Your task to perform on an android device: Play the last video I watched on Youtube Image 0: 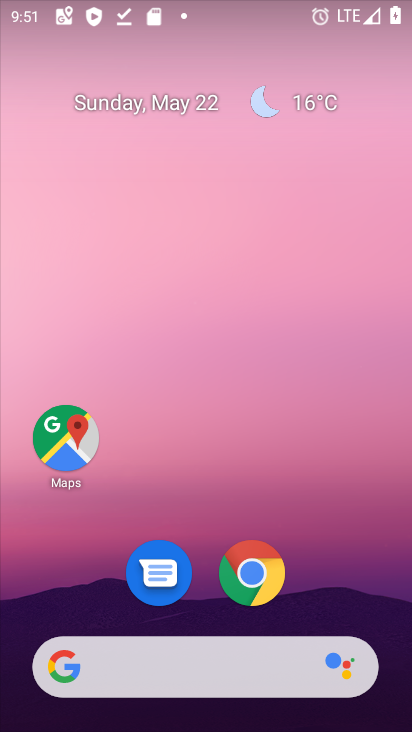
Step 0: drag from (196, 611) to (248, 8)
Your task to perform on an android device: Play the last video I watched on Youtube Image 1: 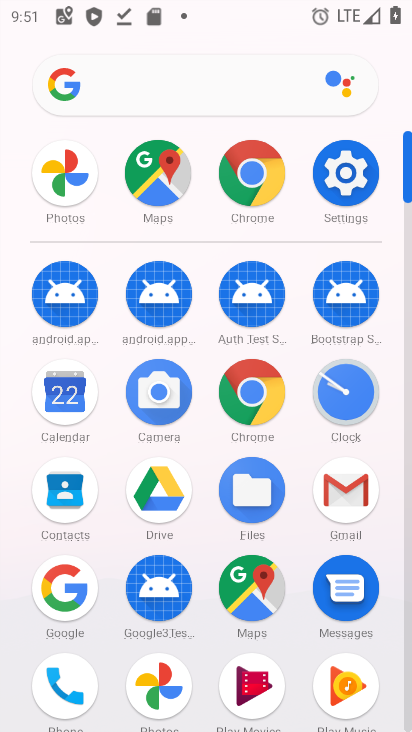
Step 1: drag from (286, 625) to (287, 96)
Your task to perform on an android device: Play the last video I watched on Youtube Image 2: 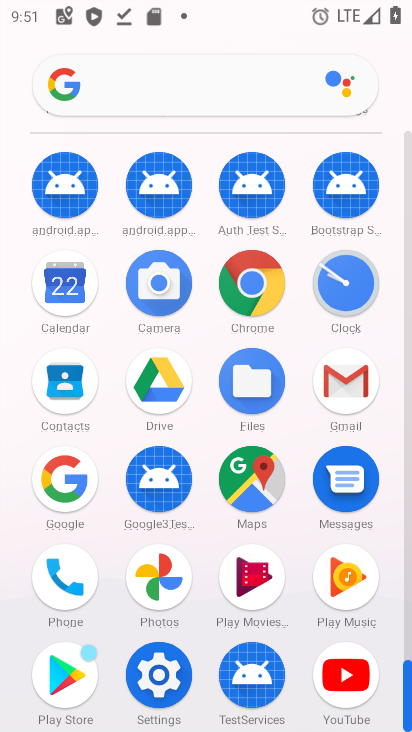
Step 2: click (342, 656)
Your task to perform on an android device: Play the last video I watched on Youtube Image 3: 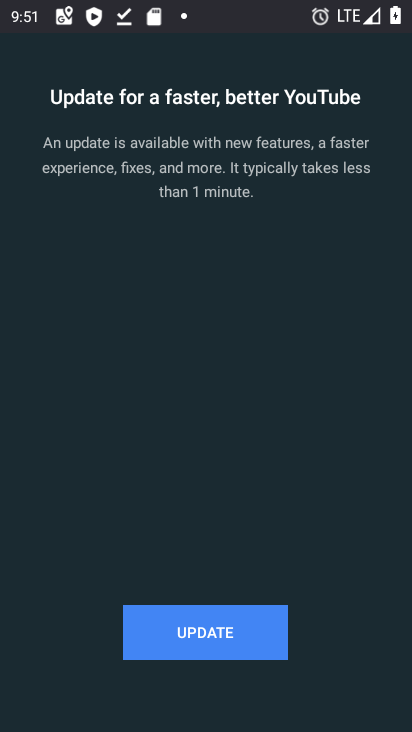
Step 3: click (252, 633)
Your task to perform on an android device: Play the last video I watched on Youtube Image 4: 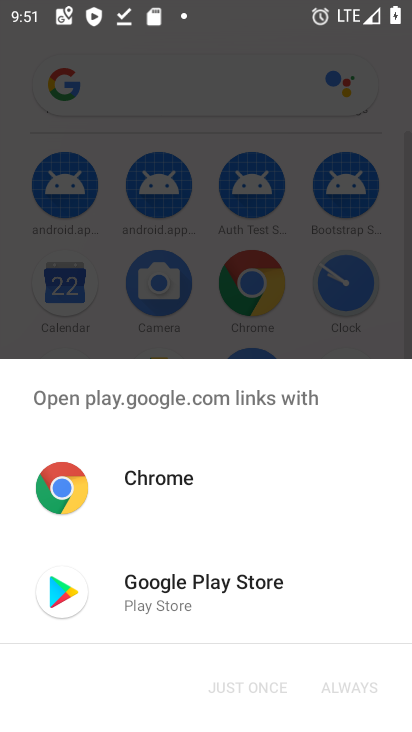
Step 4: click (227, 605)
Your task to perform on an android device: Play the last video I watched on Youtube Image 5: 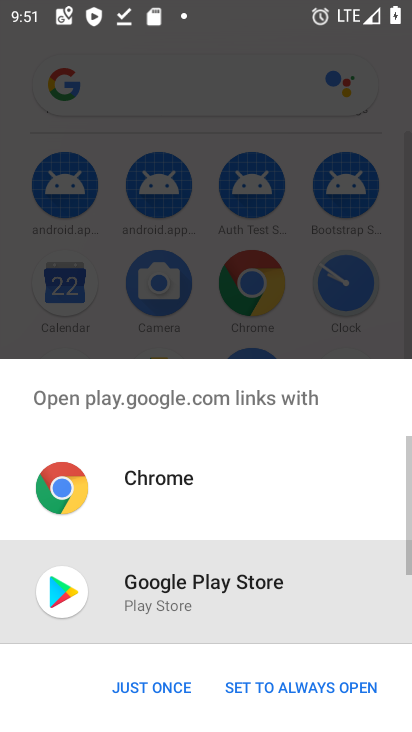
Step 5: click (155, 677)
Your task to perform on an android device: Play the last video I watched on Youtube Image 6: 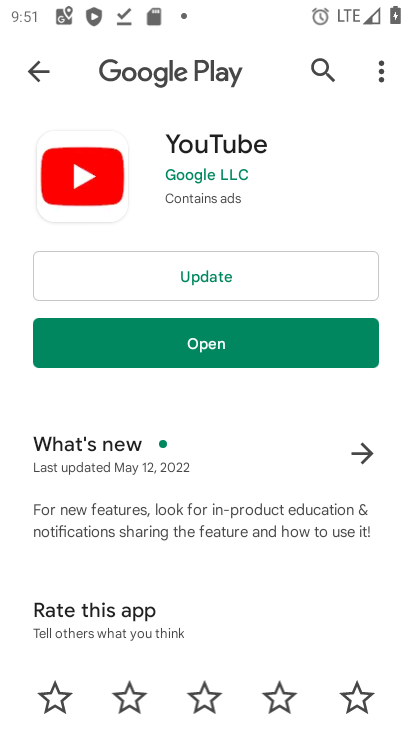
Step 6: click (256, 266)
Your task to perform on an android device: Play the last video I watched on Youtube Image 7: 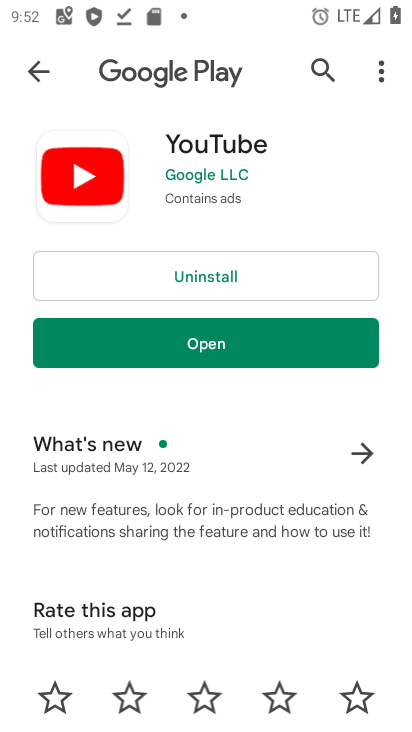
Step 7: click (189, 354)
Your task to perform on an android device: Play the last video I watched on Youtube Image 8: 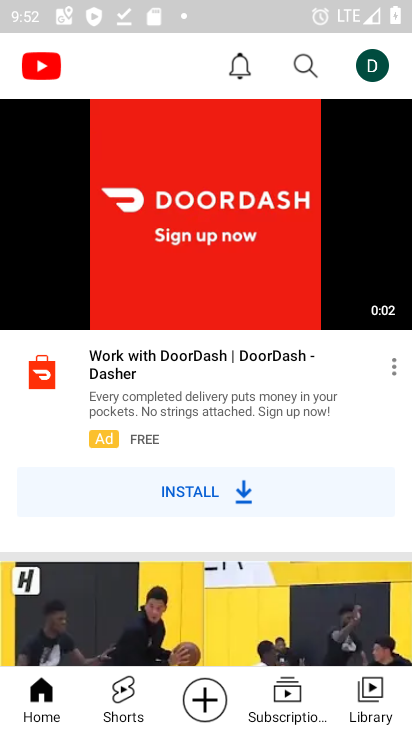
Step 8: click (359, 680)
Your task to perform on an android device: Play the last video I watched on Youtube Image 9: 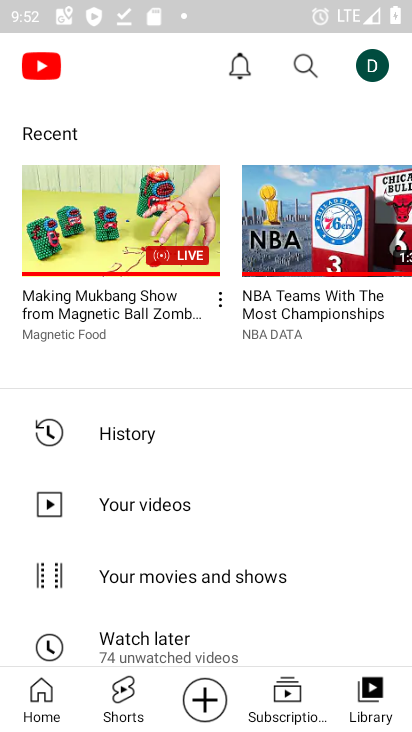
Step 9: click (144, 246)
Your task to perform on an android device: Play the last video I watched on Youtube Image 10: 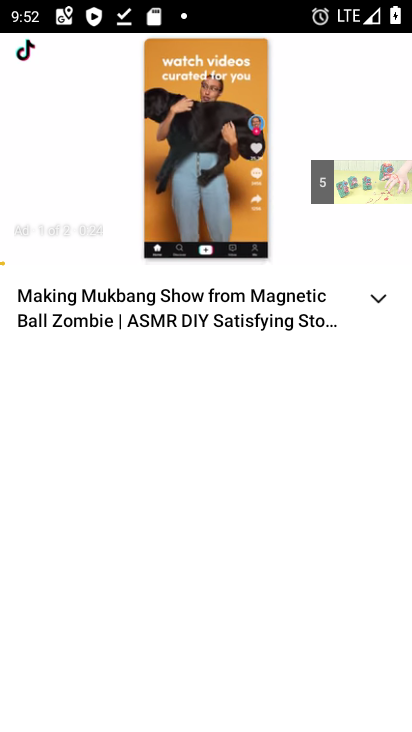
Step 10: task complete